Your task to perform on an android device: toggle translation in the chrome app Image 0: 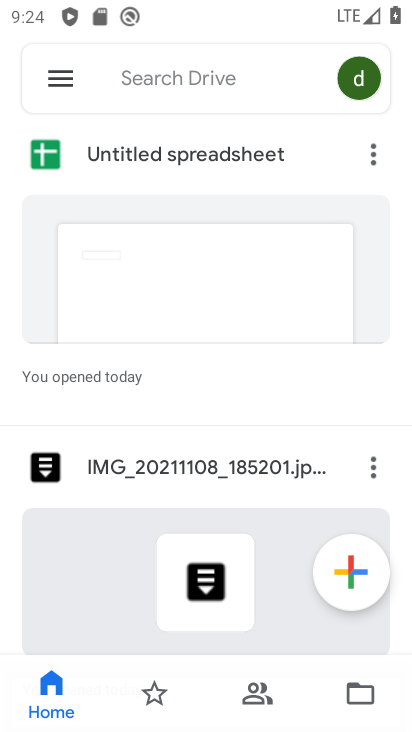
Step 0: press home button
Your task to perform on an android device: toggle translation in the chrome app Image 1: 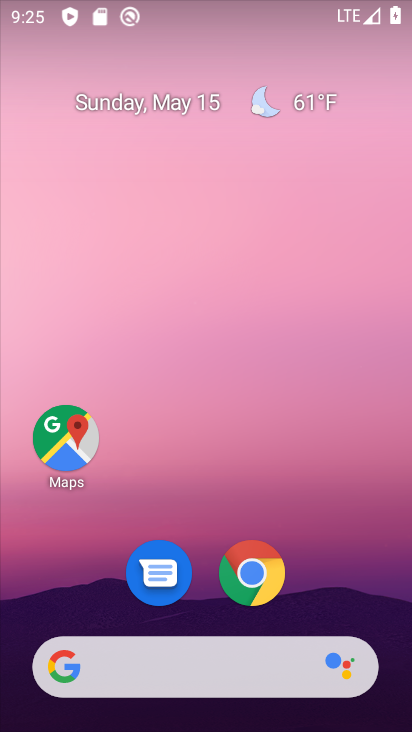
Step 1: click (260, 576)
Your task to perform on an android device: toggle translation in the chrome app Image 2: 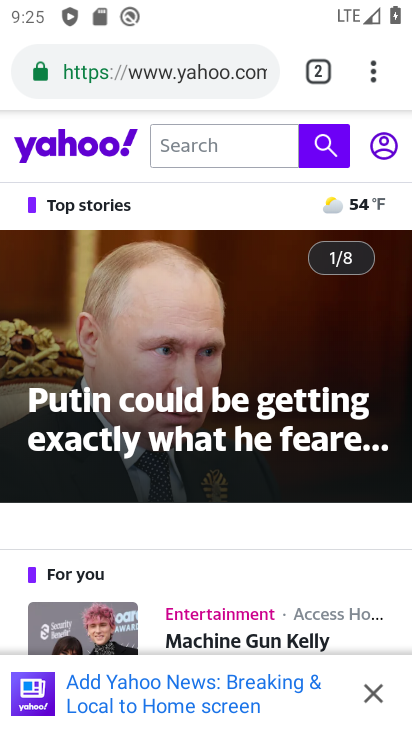
Step 2: click (372, 67)
Your task to perform on an android device: toggle translation in the chrome app Image 3: 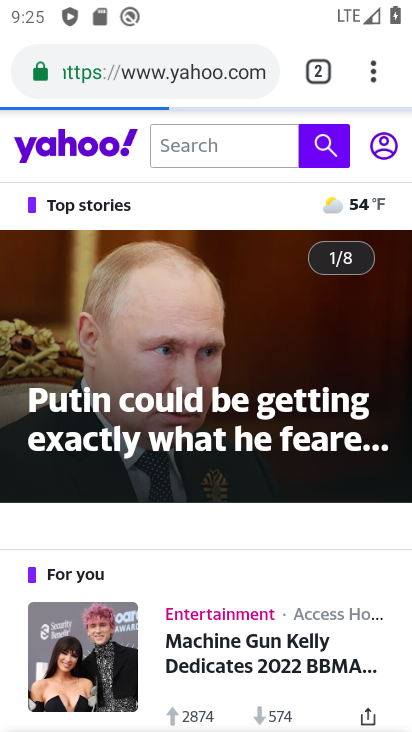
Step 3: click (371, 66)
Your task to perform on an android device: toggle translation in the chrome app Image 4: 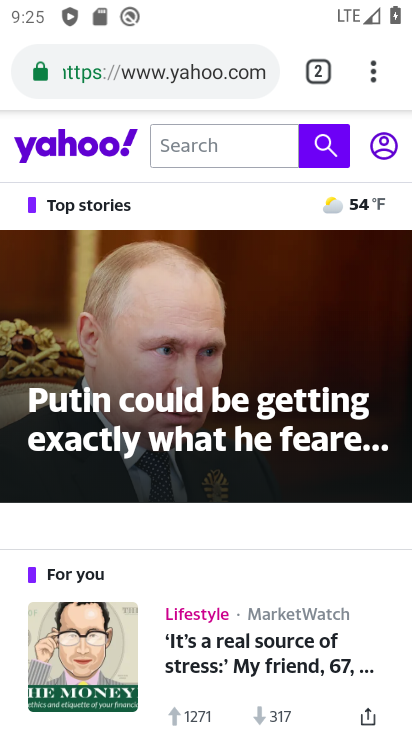
Step 4: click (377, 53)
Your task to perform on an android device: toggle translation in the chrome app Image 5: 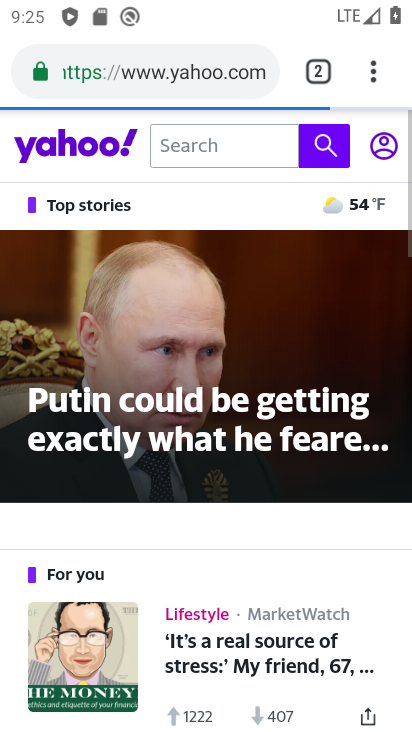
Step 5: click (391, 93)
Your task to perform on an android device: toggle translation in the chrome app Image 6: 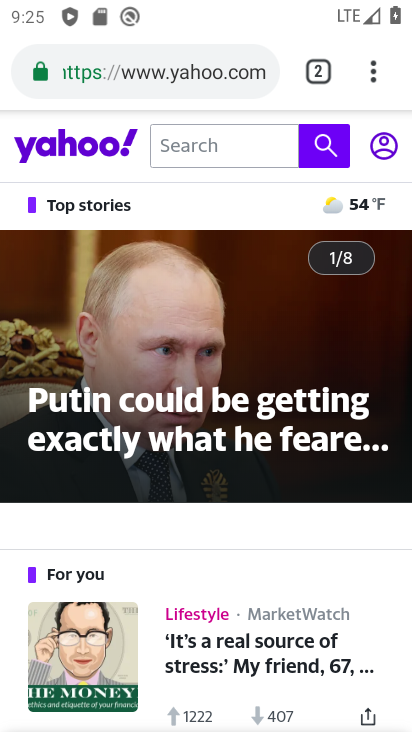
Step 6: click (367, 81)
Your task to perform on an android device: toggle translation in the chrome app Image 7: 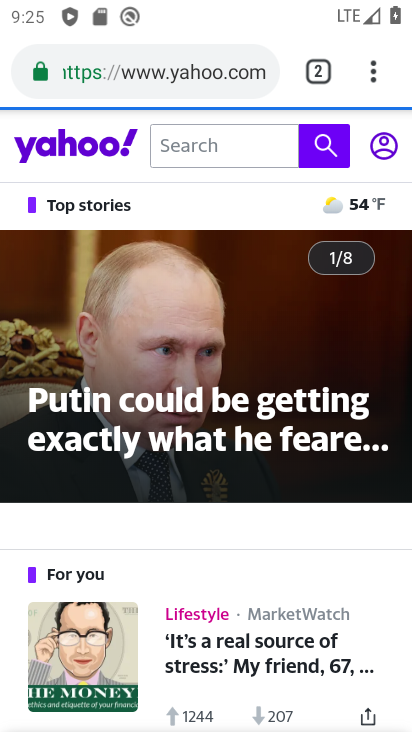
Step 7: click (369, 77)
Your task to perform on an android device: toggle translation in the chrome app Image 8: 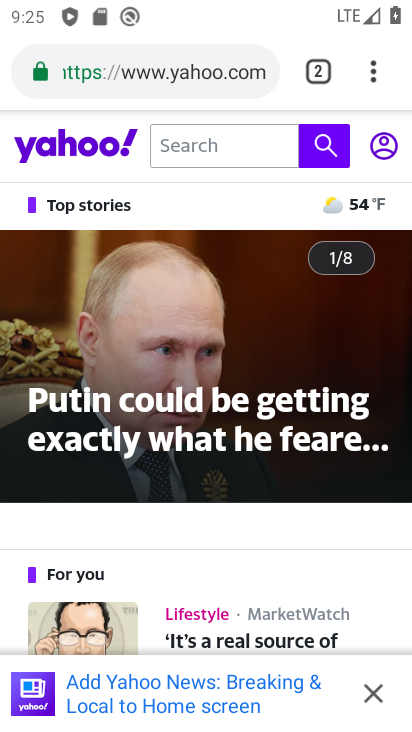
Step 8: click (378, 68)
Your task to perform on an android device: toggle translation in the chrome app Image 9: 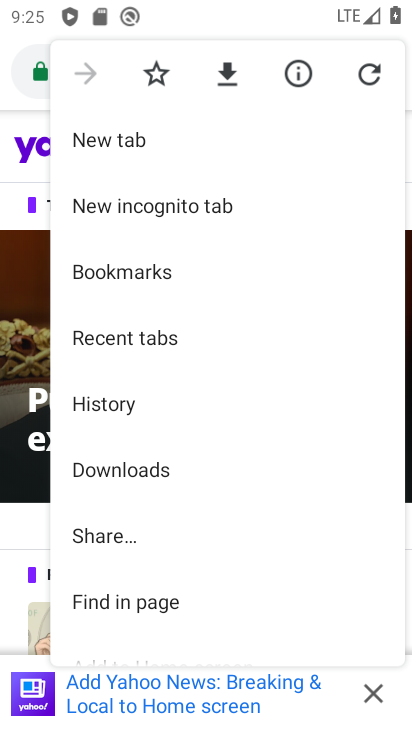
Step 9: drag from (113, 578) to (289, 86)
Your task to perform on an android device: toggle translation in the chrome app Image 10: 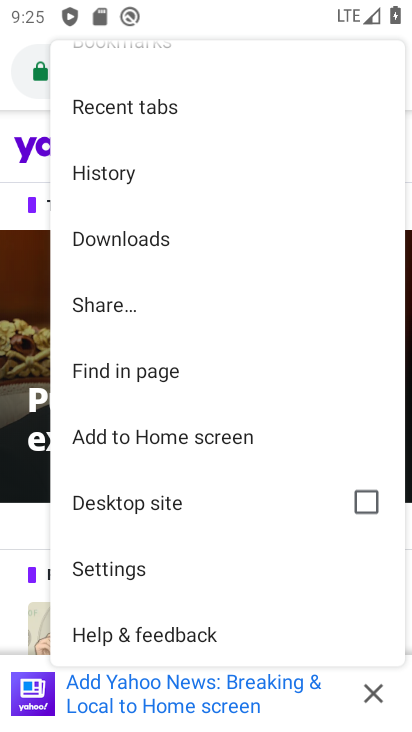
Step 10: click (103, 562)
Your task to perform on an android device: toggle translation in the chrome app Image 11: 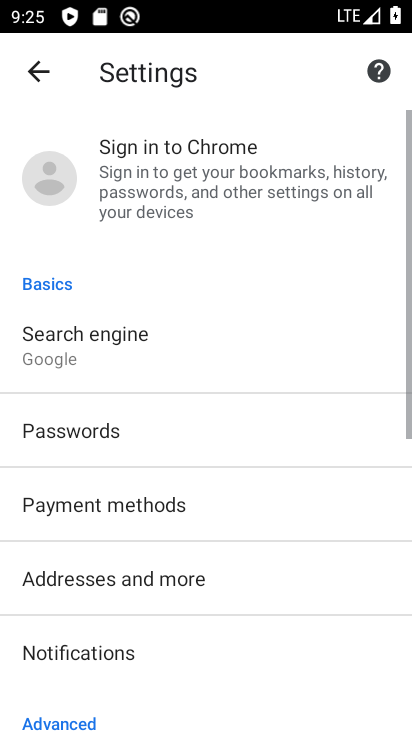
Step 11: drag from (73, 634) to (260, 180)
Your task to perform on an android device: toggle translation in the chrome app Image 12: 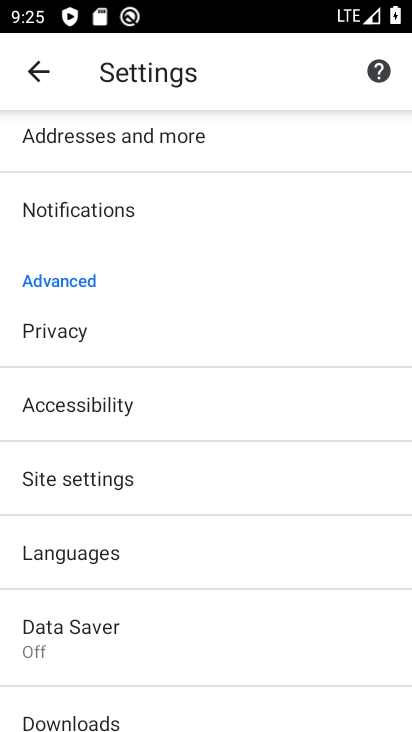
Step 12: click (85, 553)
Your task to perform on an android device: toggle translation in the chrome app Image 13: 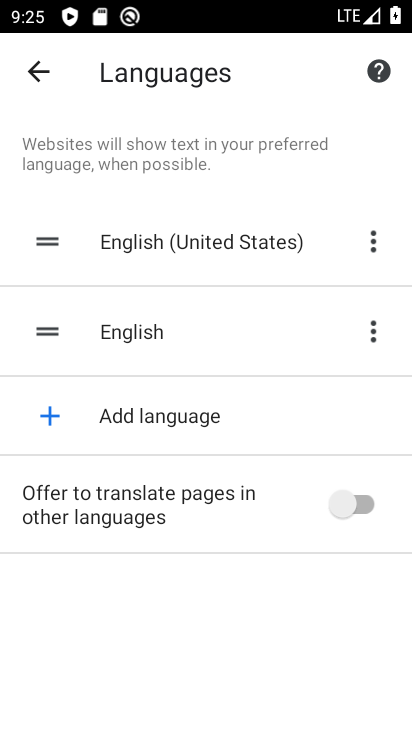
Step 13: click (346, 502)
Your task to perform on an android device: toggle translation in the chrome app Image 14: 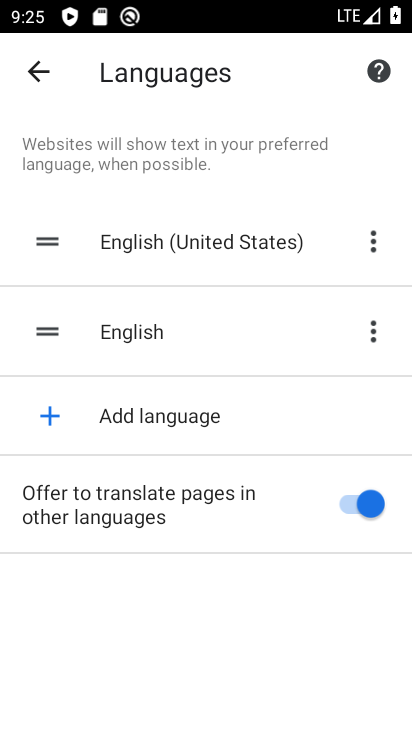
Step 14: task complete